Your task to perform on an android device: turn off priority inbox in the gmail app Image 0: 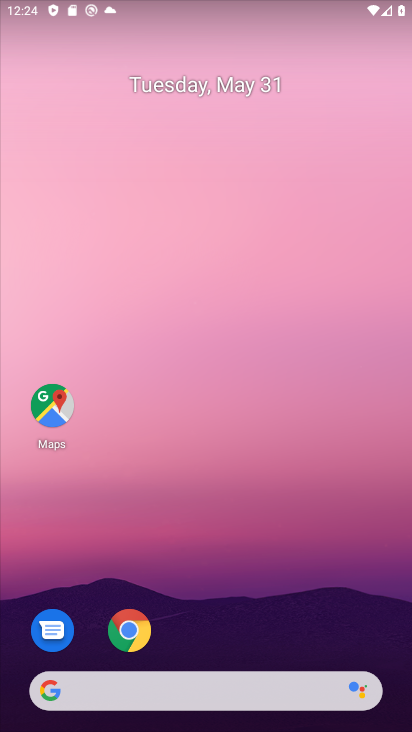
Step 0: drag from (213, 627) to (301, 190)
Your task to perform on an android device: turn off priority inbox in the gmail app Image 1: 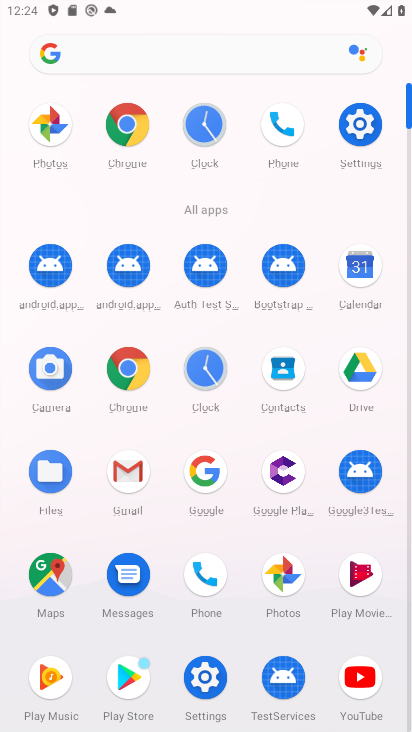
Step 1: click (129, 485)
Your task to perform on an android device: turn off priority inbox in the gmail app Image 2: 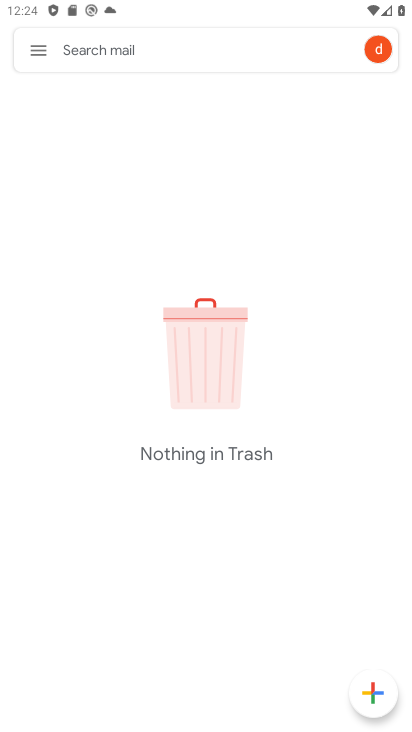
Step 2: click (35, 55)
Your task to perform on an android device: turn off priority inbox in the gmail app Image 3: 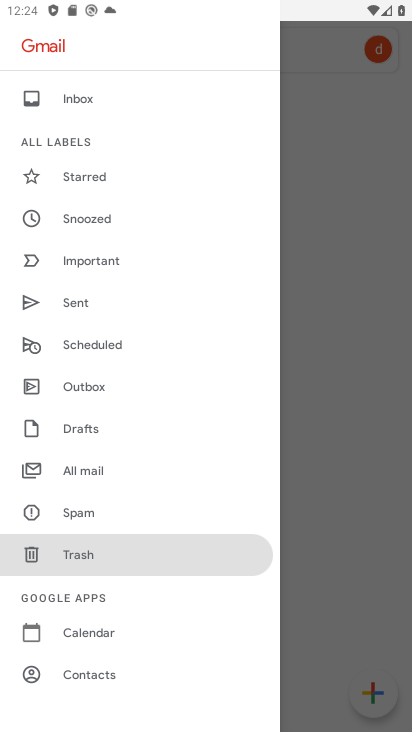
Step 3: drag from (133, 615) to (191, 139)
Your task to perform on an android device: turn off priority inbox in the gmail app Image 4: 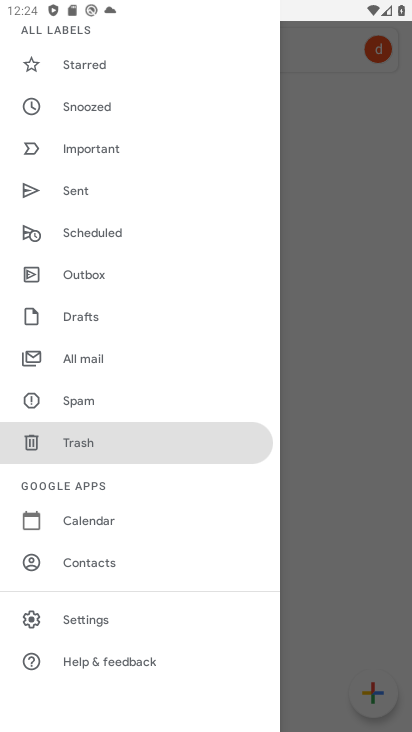
Step 4: click (95, 623)
Your task to perform on an android device: turn off priority inbox in the gmail app Image 5: 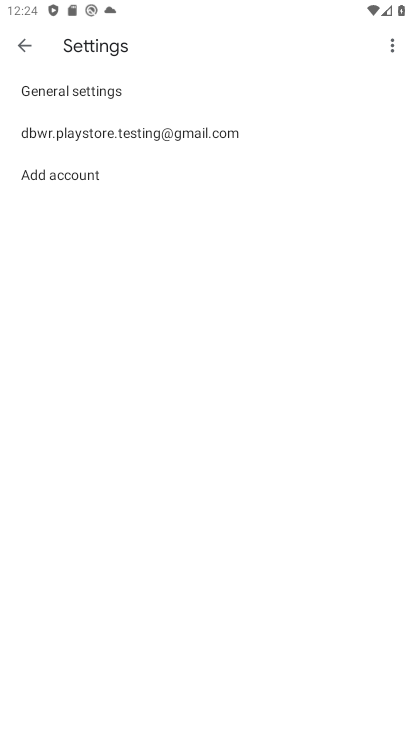
Step 5: click (190, 126)
Your task to perform on an android device: turn off priority inbox in the gmail app Image 6: 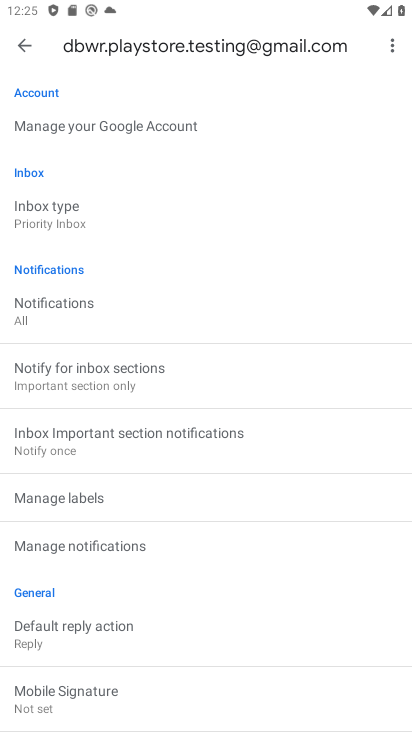
Step 6: task complete